Your task to perform on an android device: turn pop-ups on in chrome Image 0: 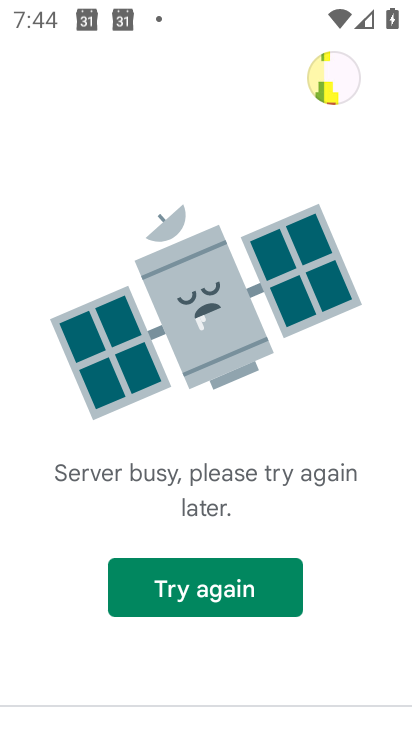
Step 0: press home button
Your task to perform on an android device: turn pop-ups on in chrome Image 1: 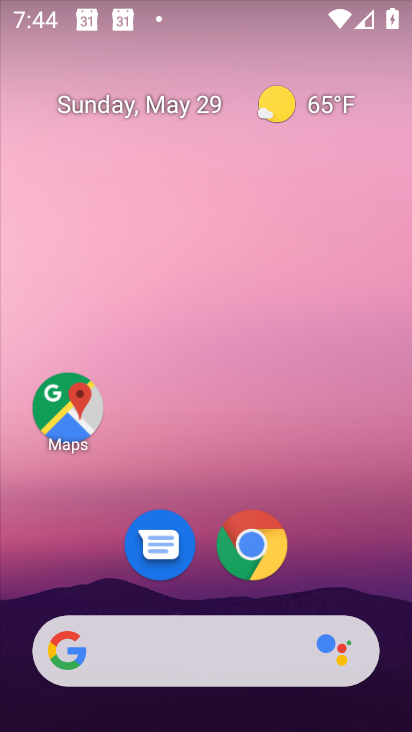
Step 1: click (250, 548)
Your task to perform on an android device: turn pop-ups on in chrome Image 2: 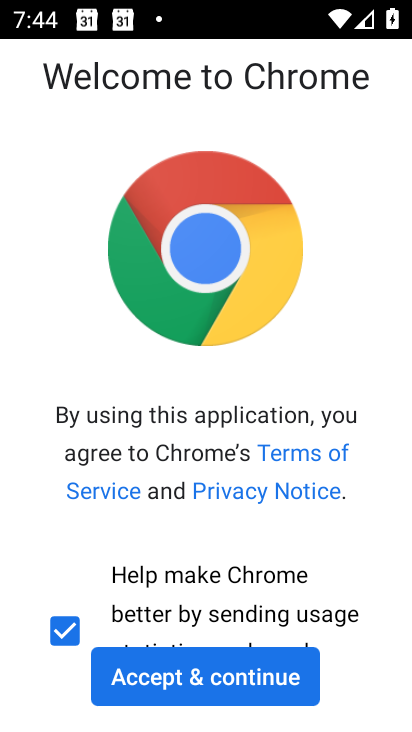
Step 2: click (294, 672)
Your task to perform on an android device: turn pop-ups on in chrome Image 3: 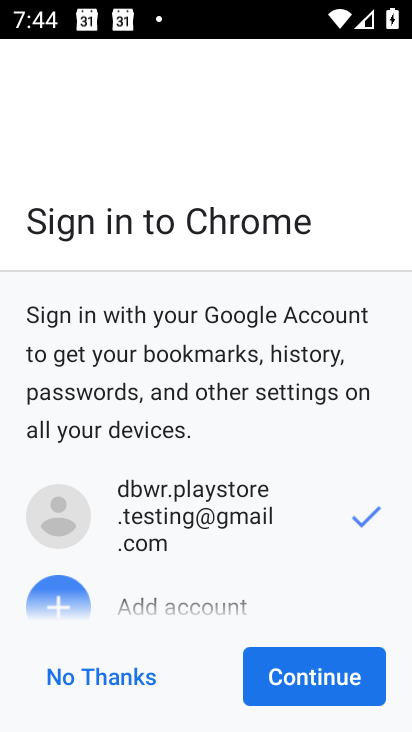
Step 3: click (303, 678)
Your task to perform on an android device: turn pop-ups on in chrome Image 4: 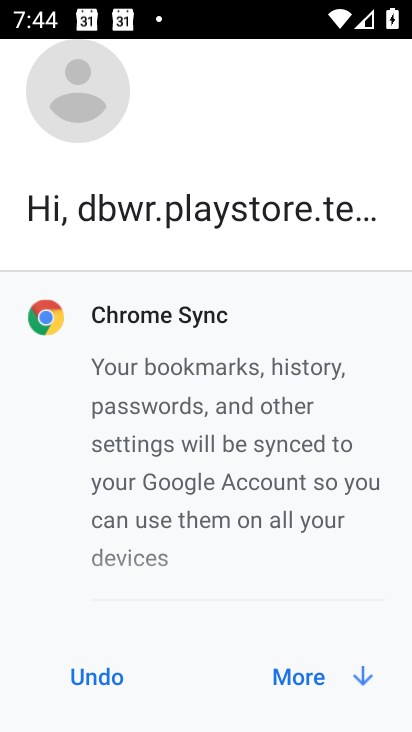
Step 4: click (306, 680)
Your task to perform on an android device: turn pop-ups on in chrome Image 5: 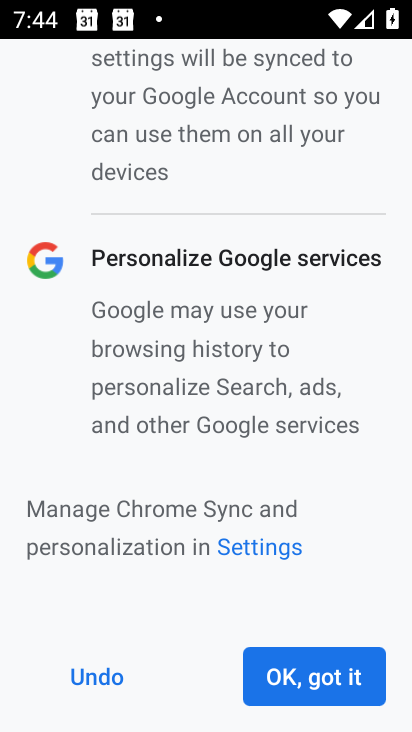
Step 5: click (306, 678)
Your task to perform on an android device: turn pop-ups on in chrome Image 6: 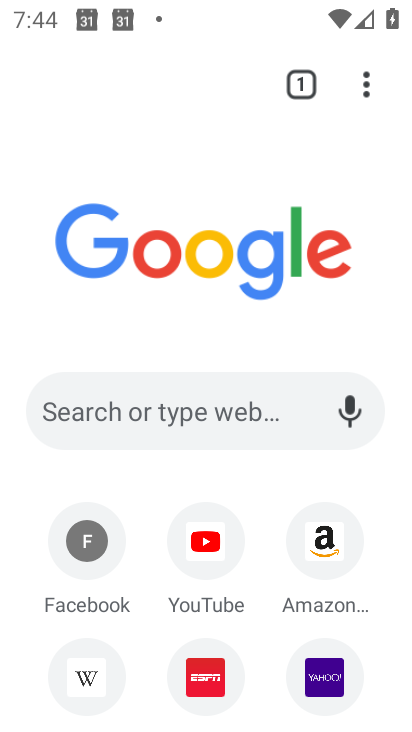
Step 6: click (366, 86)
Your task to perform on an android device: turn pop-ups on in chrome Image 7: 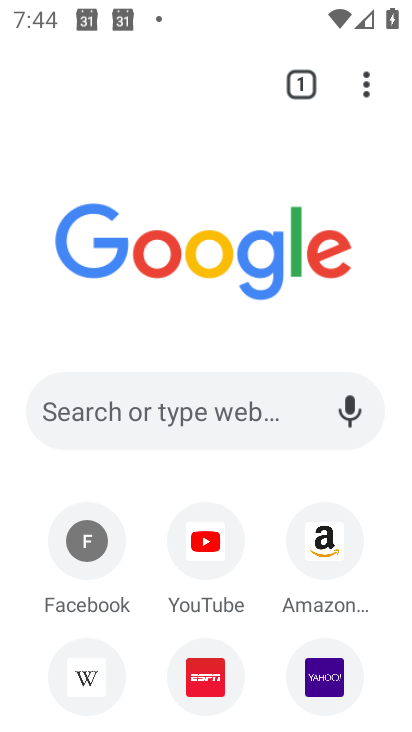
Step 7: click (369, 87)
Your task to perform on an android device: turn pop-ups on in chrome Image 8: 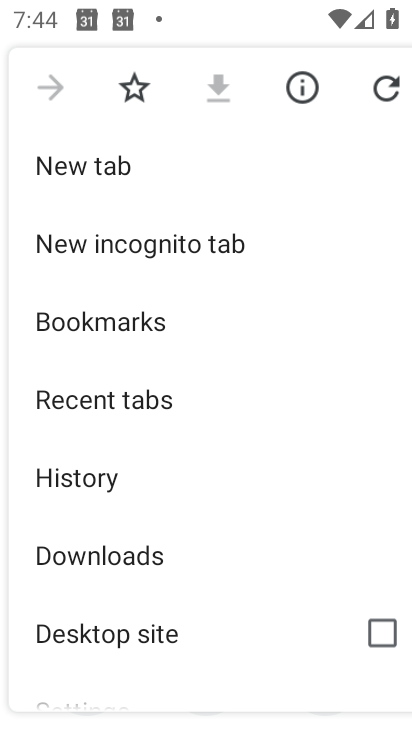
Step 8: drag from (103, 636) to (201, 231)
Your task to perform on an android device: turn pop-ups on in chrome Image 9: 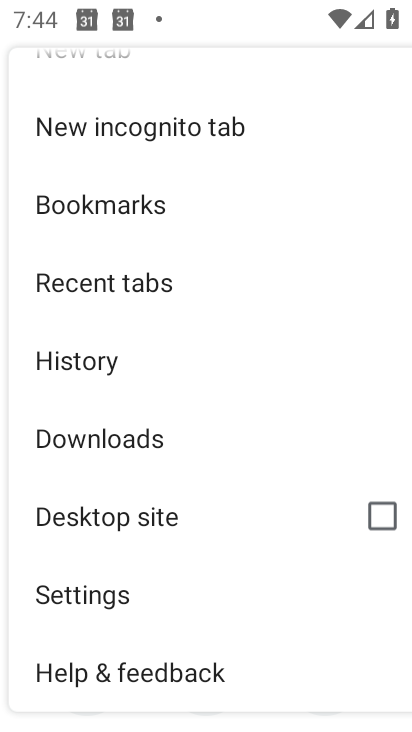
Step 9: click (121, 591)
Your task to perform on an android device: turn pop-ups on in chrome Image 10: 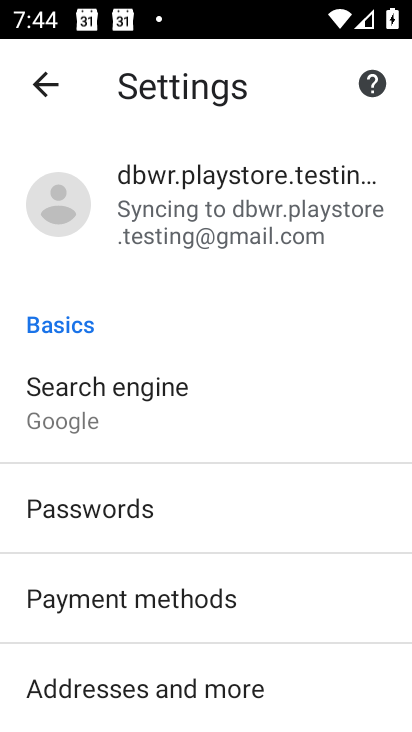
Step 10: drag from (251, 622) to (281, 202)
Your task to perform on an android device: turn pop-ups on in chrome Image 11: 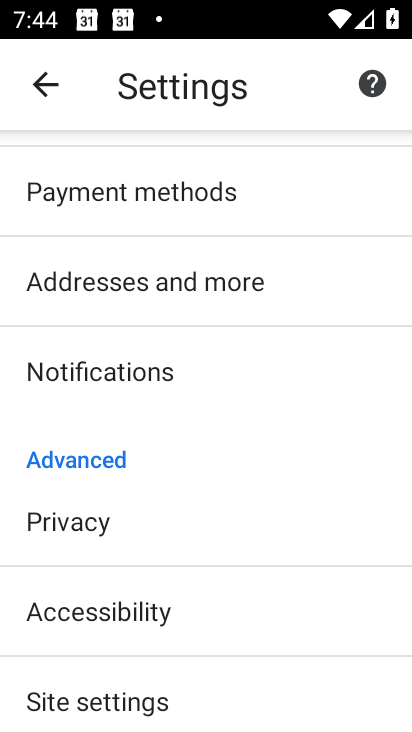
Step 11: click (154, 711)
Your task to perform on an android device: turn pop-ups on in chrome Image 12: 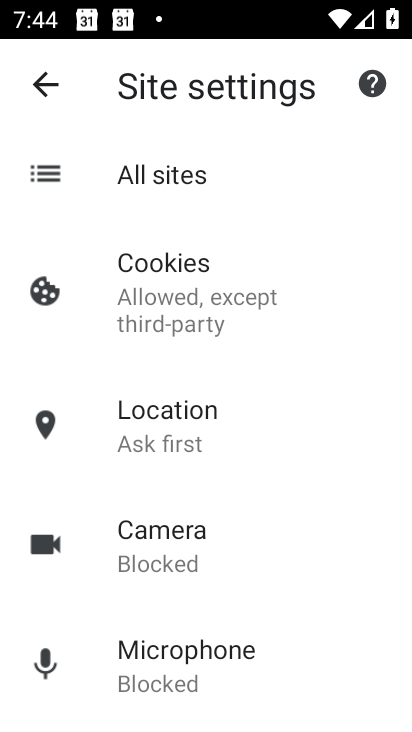
Step 12: drag from (235, 692) to (276, 221)
Your task to perform on an android device: turn pop-ups on in chrome Image 13: 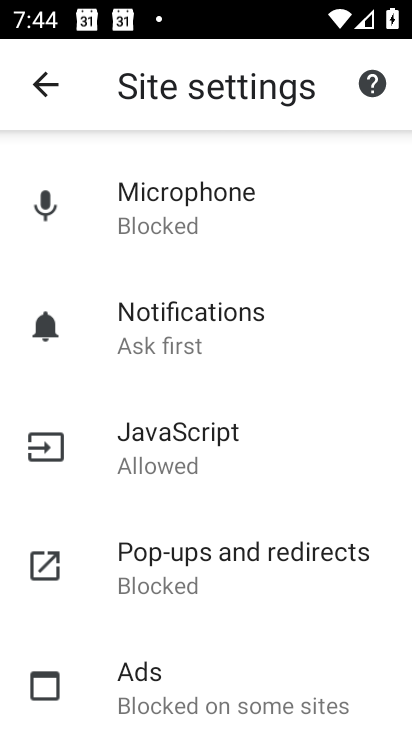
Step 13: click (196, 585)
Your task to perform on an android device: turn pop-ups on in chrome Image 14: 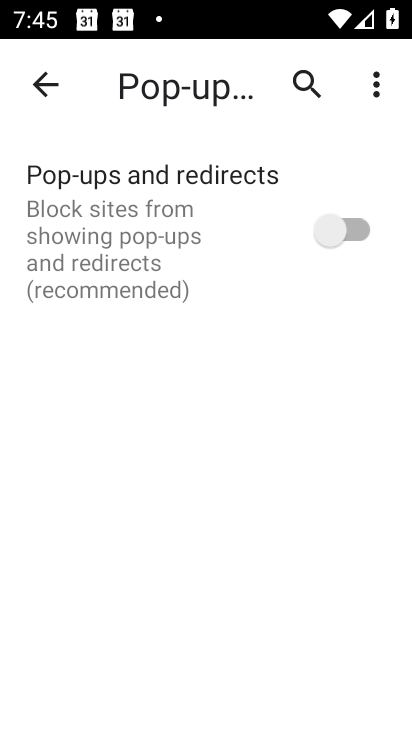
Step 14: click (356, 228)
Your task to perform on an android device: turn pop-ups on in chrome Image 15: 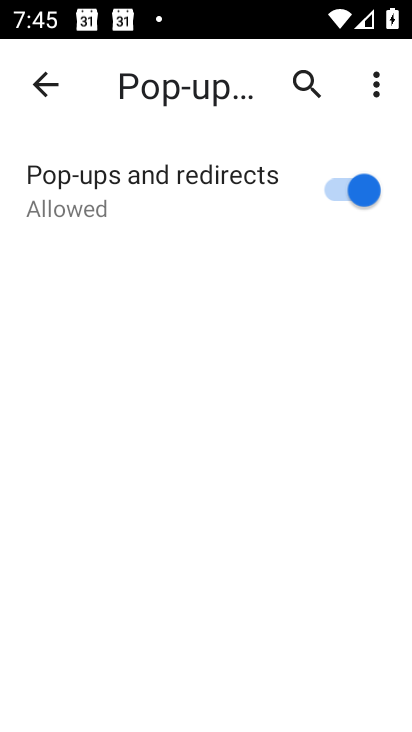
Step 15: task complete